Your task to perform on an android device: Go to Google maps Image 0: 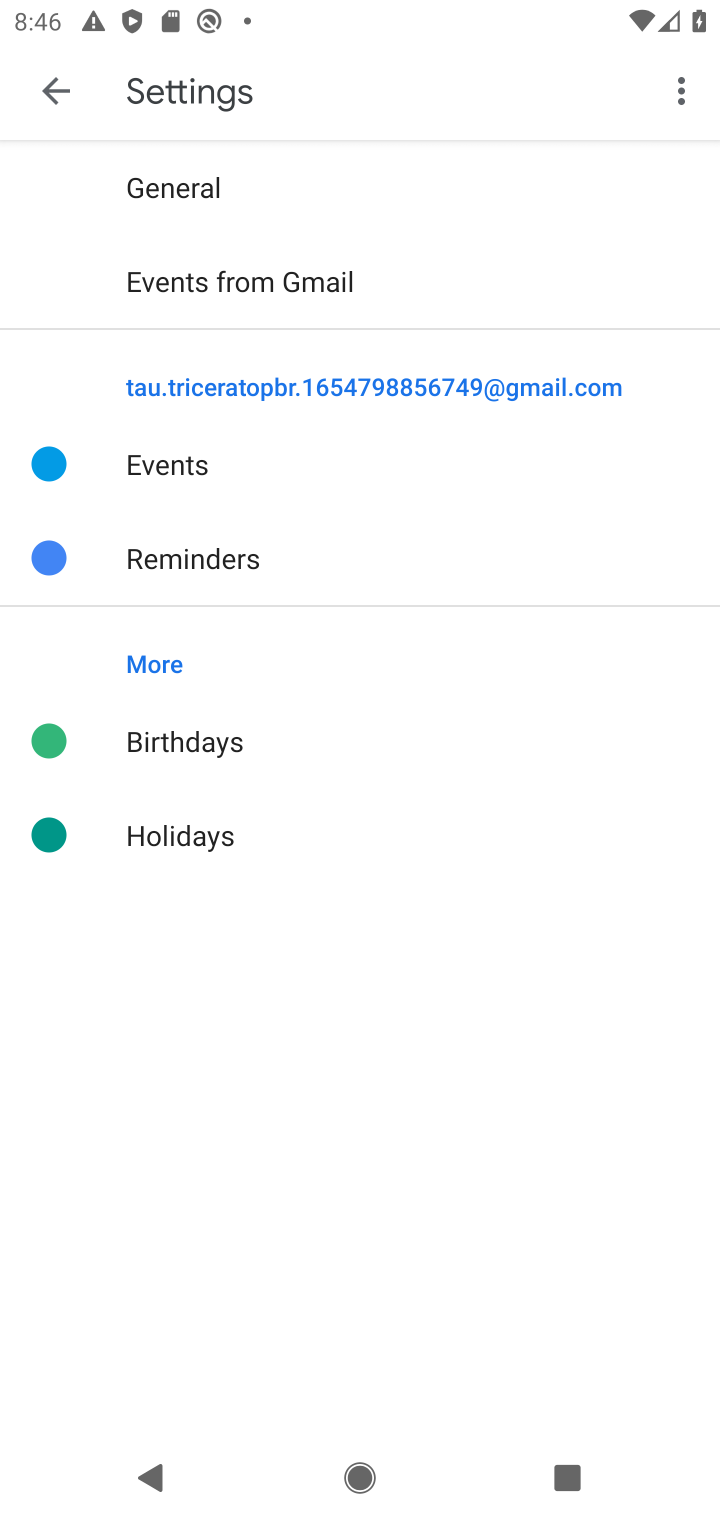
Step 0: press home button
Your task to perform on an android device: Go to Google maps Image 1: 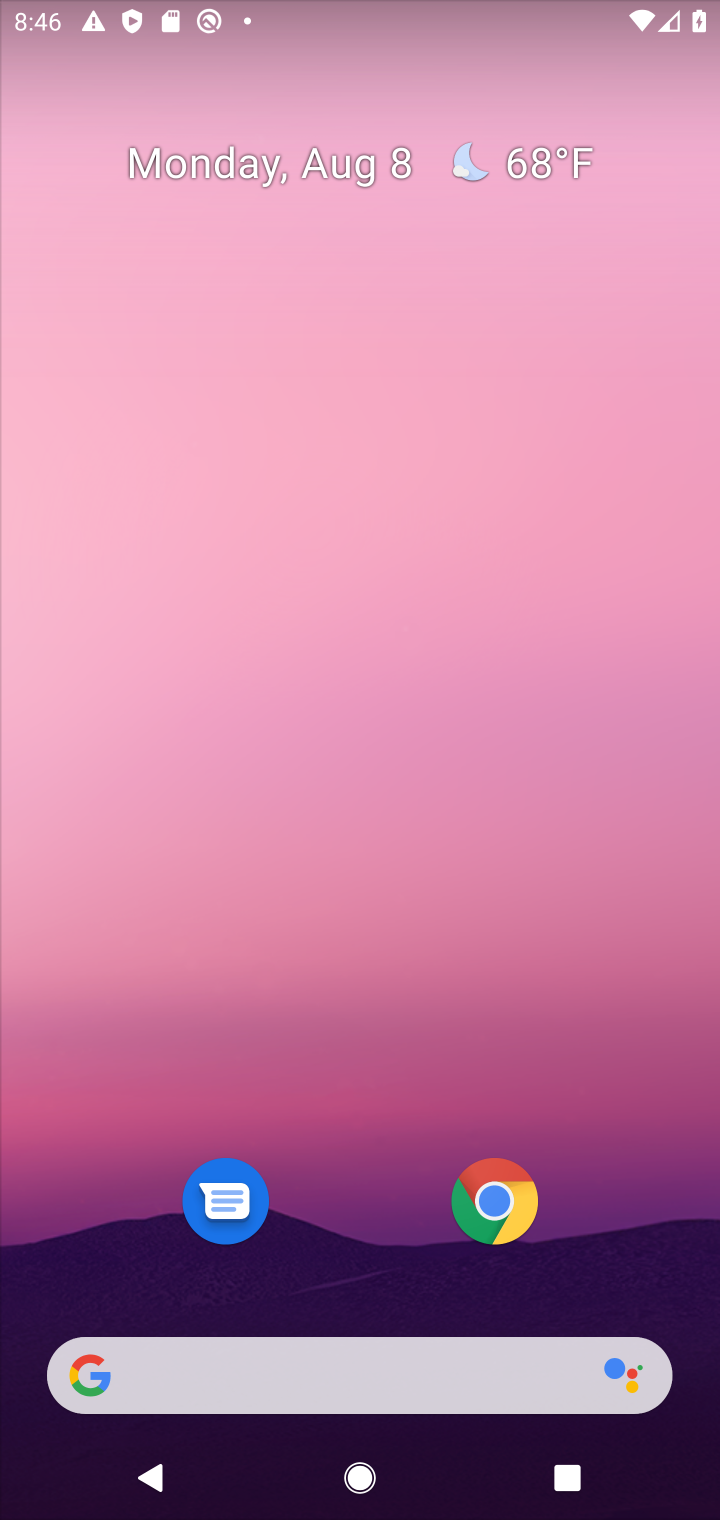
Step 1: drag from (618, 1213) to (639, 215)
Your task to perform on an android device: Go to Google maps Image 2: 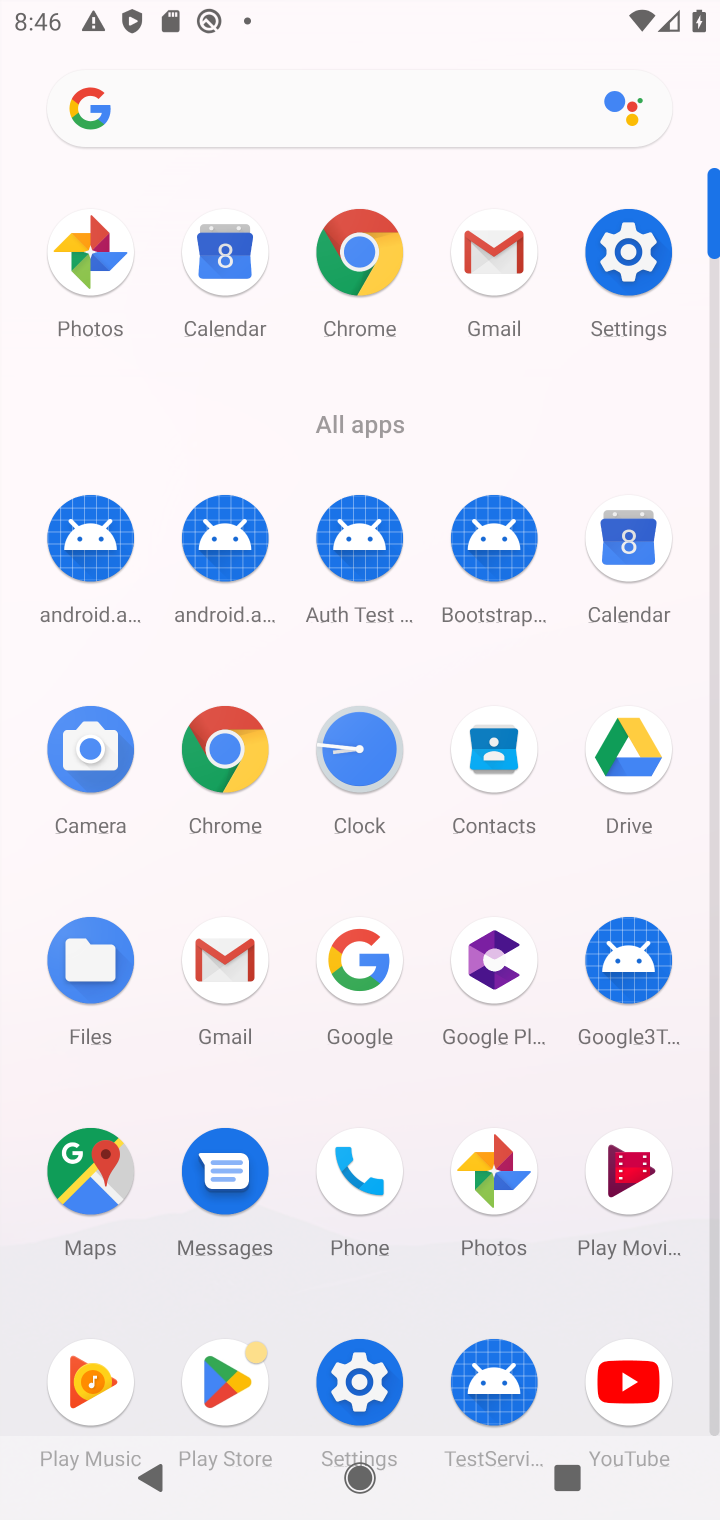
Step 2: click (94, 1183)
Your task to perform on an android device: Go to Google maps Image 3: 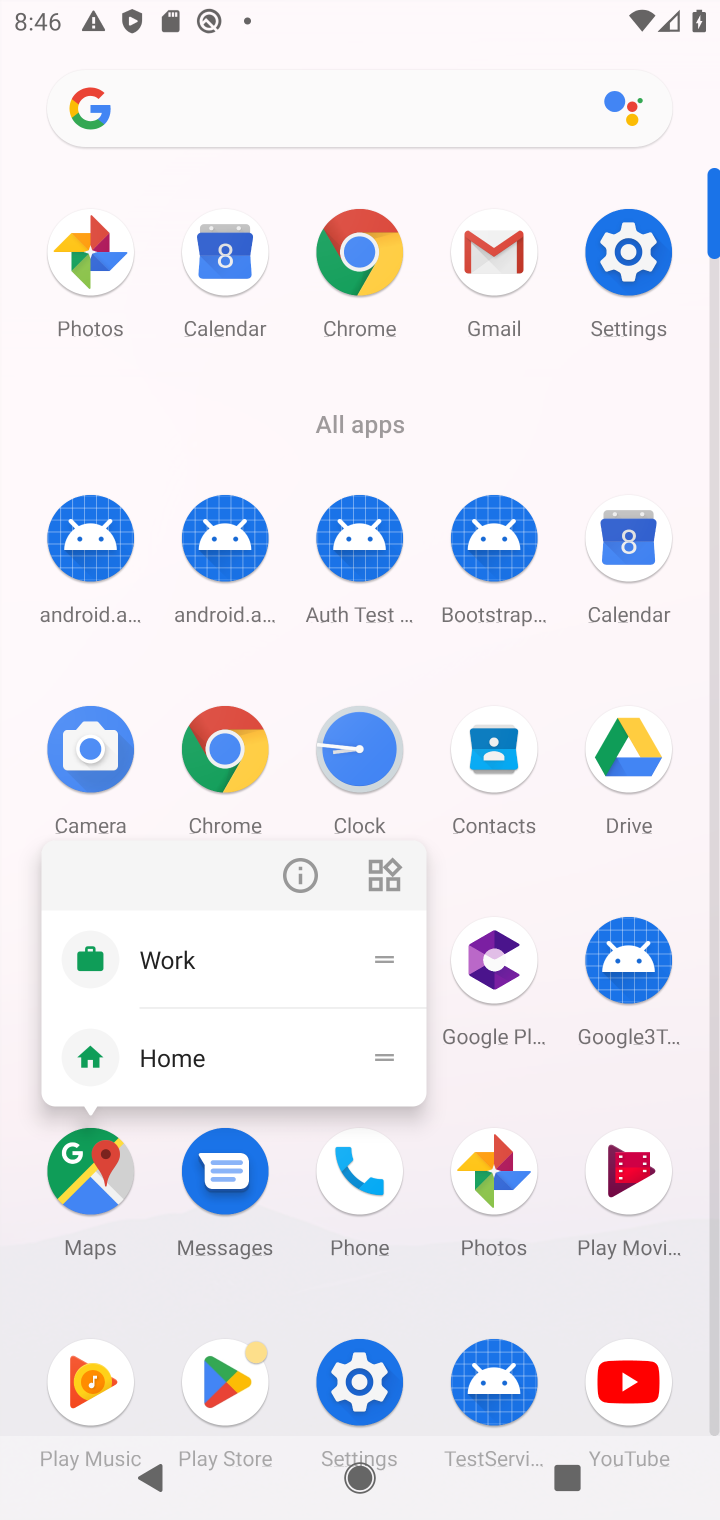
Step 3: click (94, 1183)
Your task to perform on an android device: Go to Google maps Image 4: 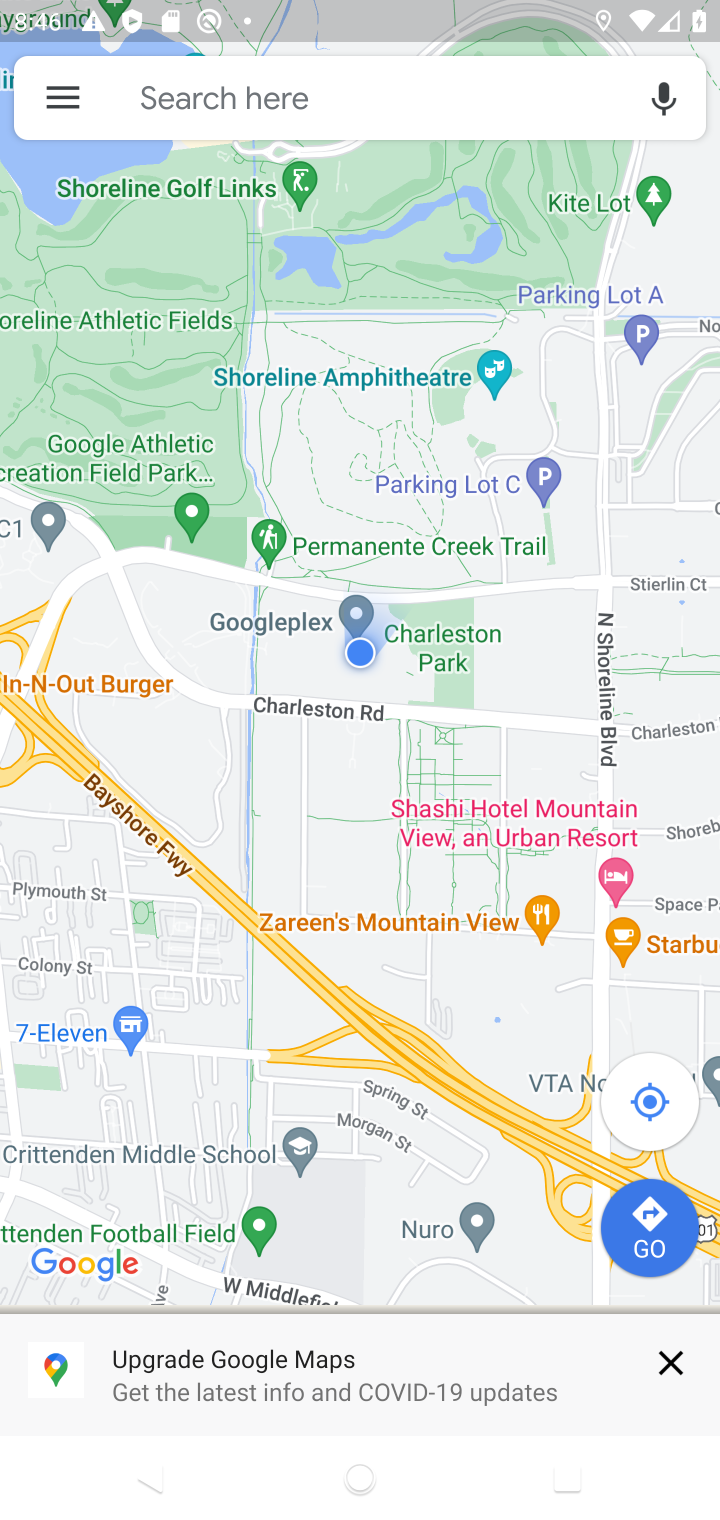
Step 4: task complete